Your task to perform on an android device: Open Google Chrome and click the shortcut for Amazon.com Image 0: 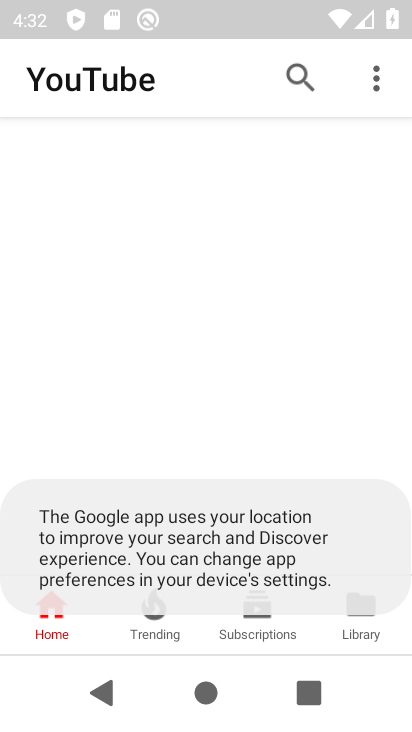
Step 0: drag from (350, 518) to (298, 185)
Your task to perform on an android device: Open Google Chrome and click the shortcut for Amazon.com Image 1: 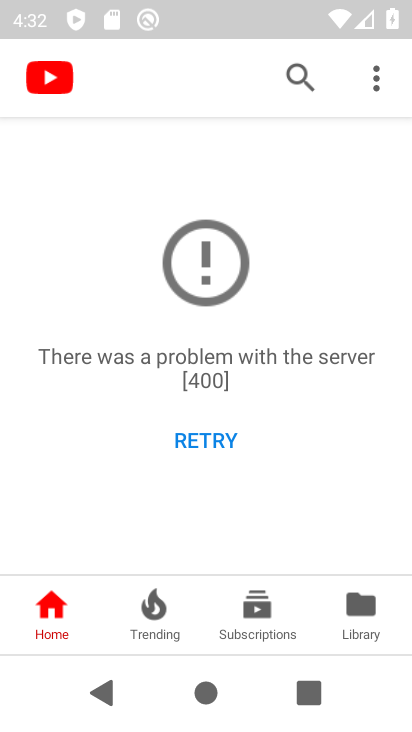
Step 1: press back button
Your task to perform on an android device: Open Google Chrome and click the shortcut for Amazon.com Image 2: 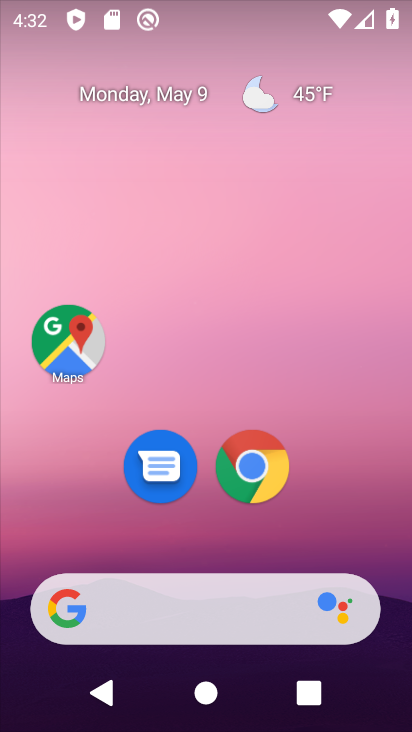
Step 2: drag from (336, 534) to (226, 11)
Your task to perform on an android device: Open Google Chrome and click the shortcut for Amazon.com Image 3: 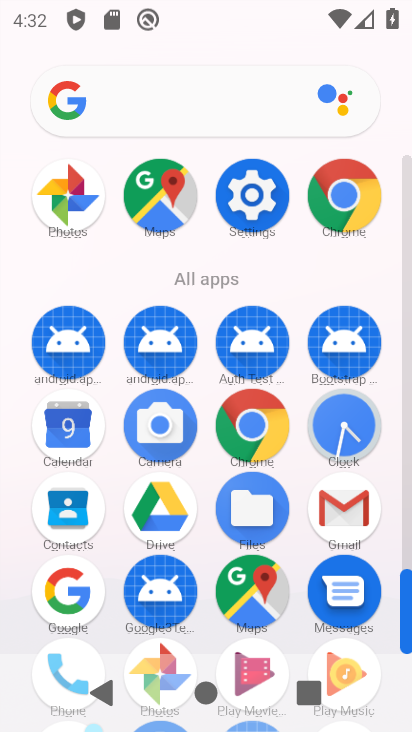
Step 3: drag from (16, 592) to (13, 255)
Your task to perform on an android device: Open Google Chrome and click the shortcut for Amazon.com Image 4: 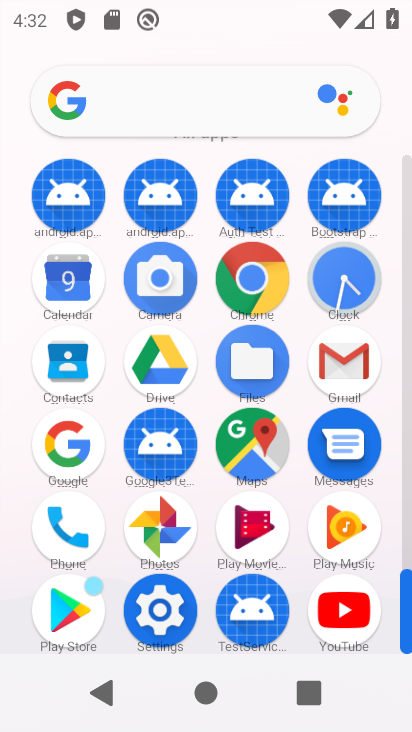
Step 4: click (249, 279)
Your task to perform on an android device: Open Google Chrome and click the shortcut for Amazon.com Image 5: 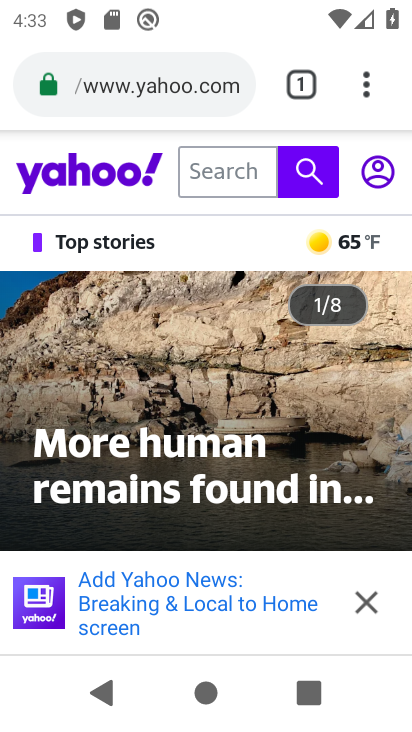
Step 5: drag from (368, 88) to (1, 5)
Your task to perform on an android device: Open Google Chrome and click the shortcut for Amazon.com Image 6: 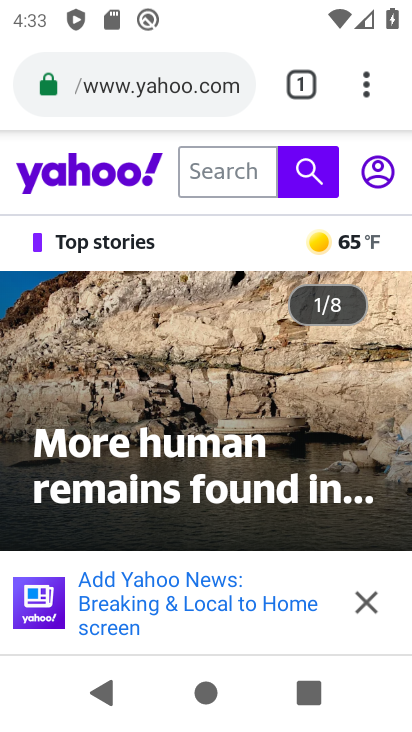
Step 6: click (143, 84)
Your task to perform on an android device: Open Google Chrome and click the shortcut for Amazon.com Image 7: 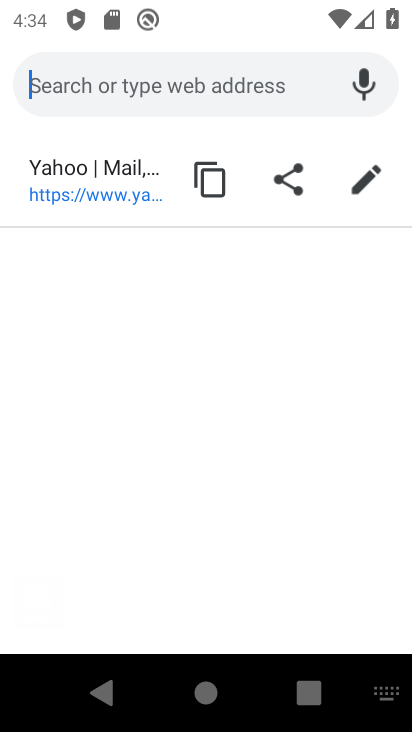
Step 7: type "amazon"
Your task to perform on an android device: Open Google Chrome and click the shortcut for Amazon.com Image 8: 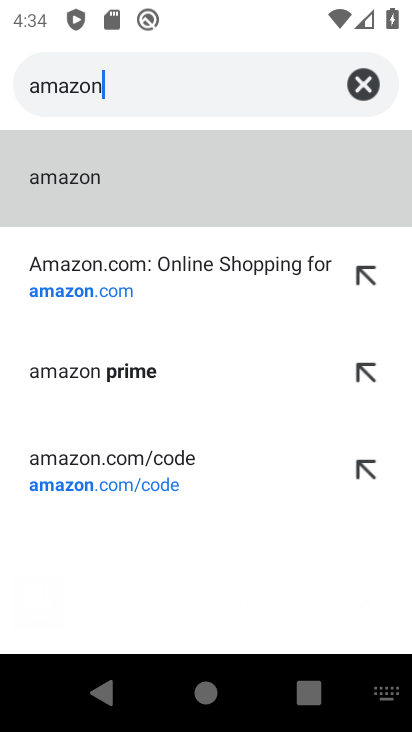
Step 8: click (160, 279)
Your task to perform on an android device: Open Google Chrome and click the shortcut for Amazon.com Image 9: 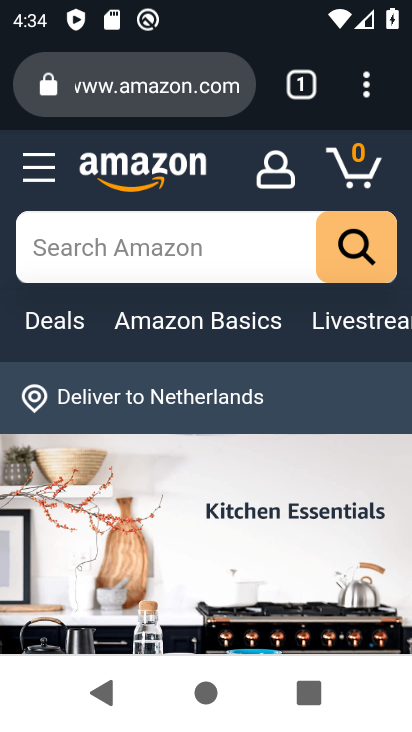
Step 9: drag from (373, 86) to (185, 350)
Your task to perform on an android device: Open Google Chrome and click the shortcut for Amazon.com Image 10: 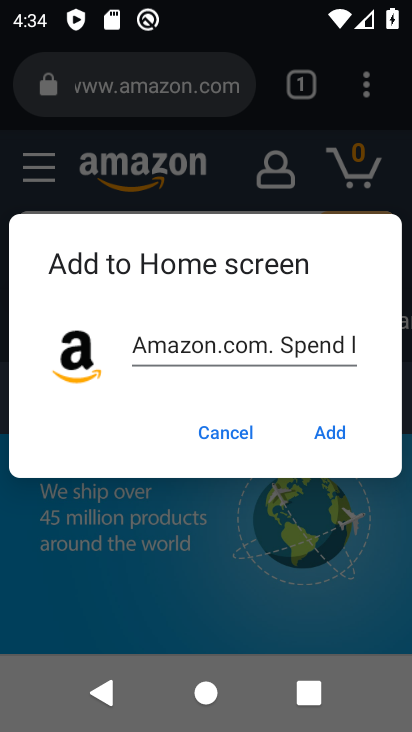
Step 10: click (324, 430)
Your task to perform on an android device: Open Google Chrome and click the shortcut for Amazon.com Image 11: 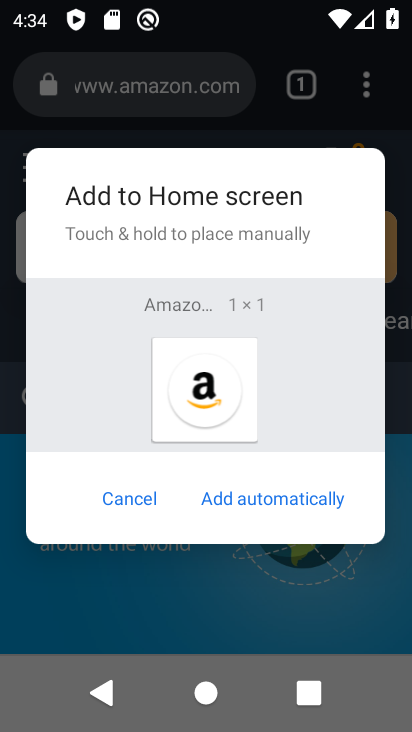
Step 11: click (267, 493)
Your task to perform on an android device: Open Google Chrome and click the shortcut for Amazon.com Image 12: 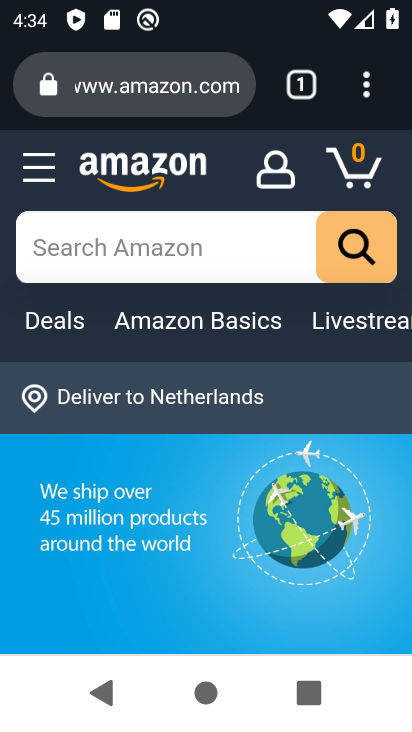
Step 12: task complete